Your task to perform on an android device: What's the weather going to be tomorrow? Image 0: 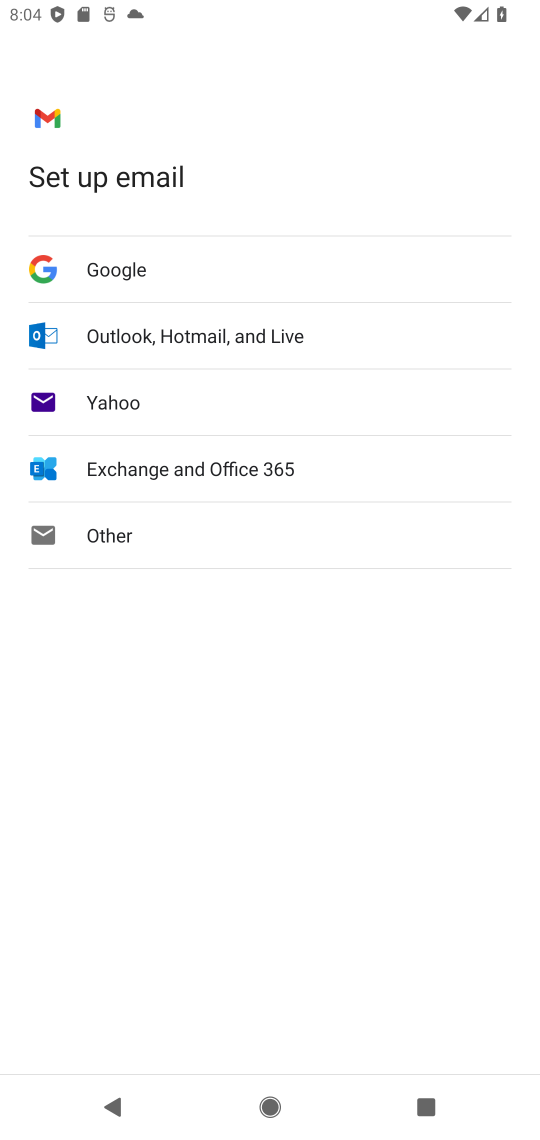
Step 0: press home button
Your task to perform on an android device: What's the weather going to be tomorrow? Image 1: 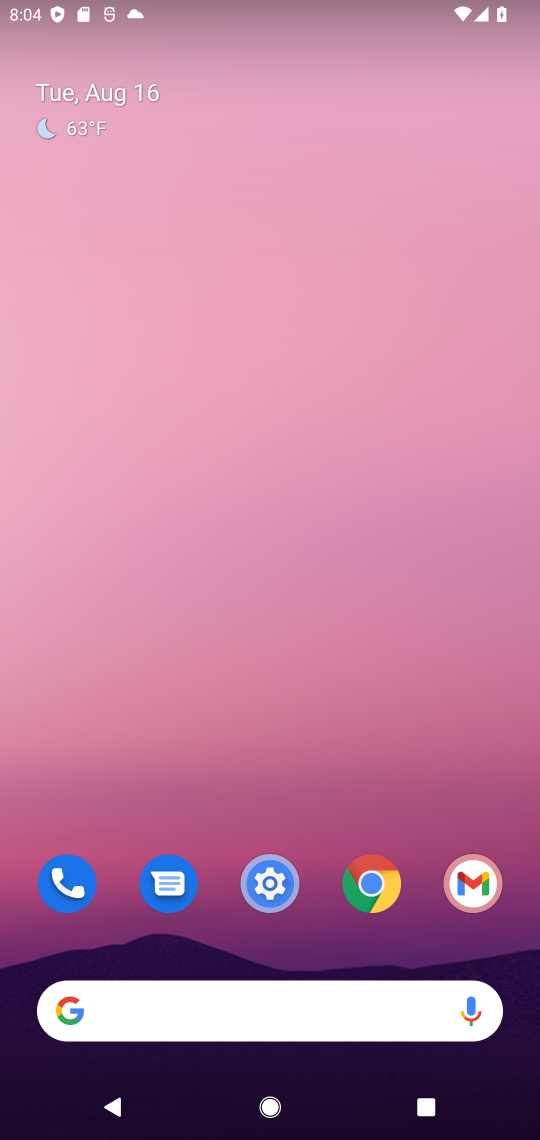
Step 1: click (410, 1013)
Your task to perform on an android device: What's the weather going to be tomorrow? Image 2: 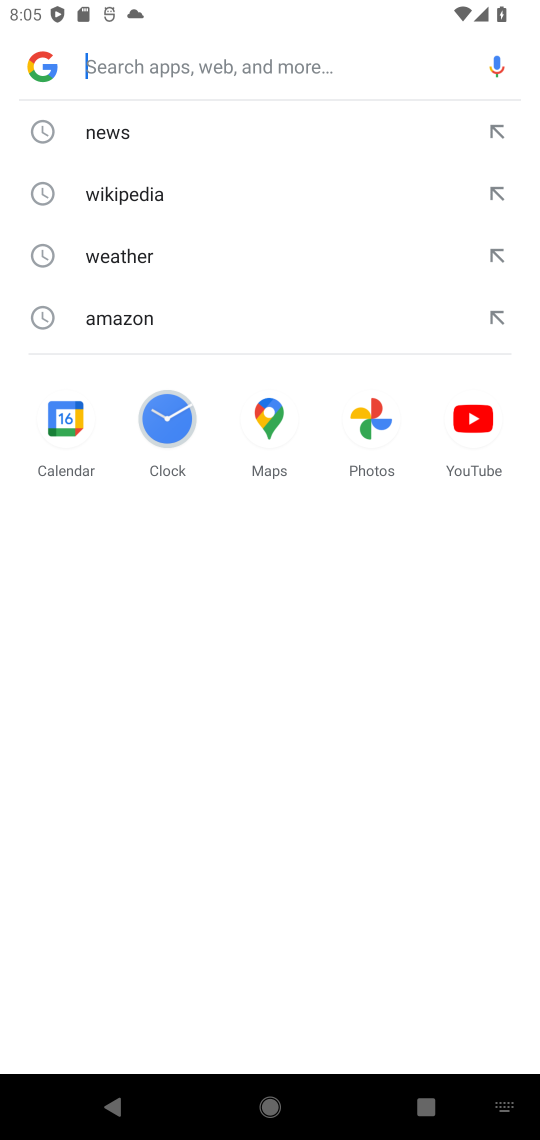
Step 2: click (162, 259)
Your task to perform on an android device: What's the weather going to be tomorrow? Image 3: 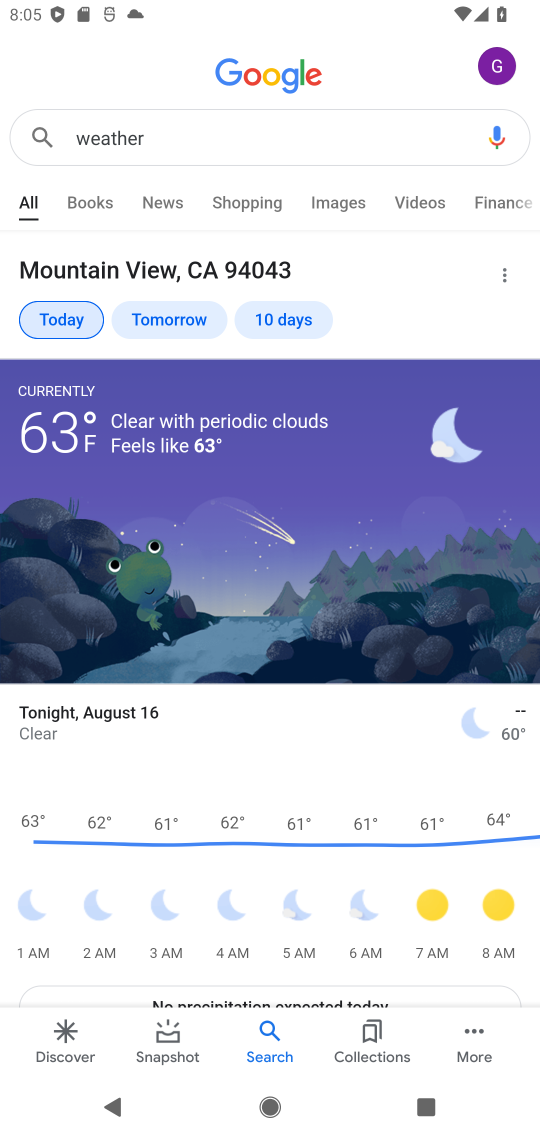
Step 3: click (193, 322)
Your task to perform on an android device: What's the weather going to be tomorrow? Image 4: 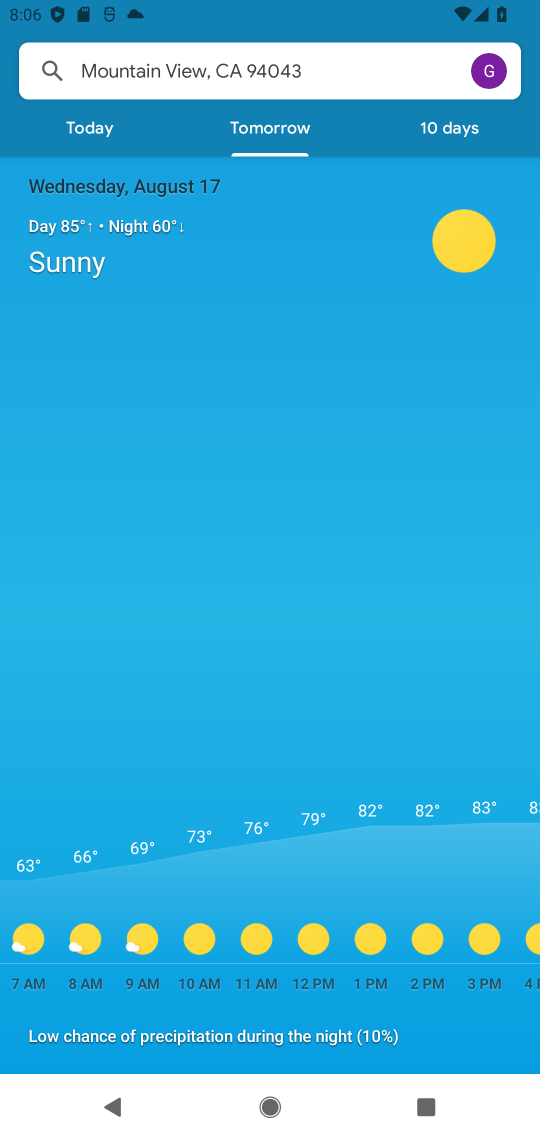
Step 4: task complete